Your task to perform on an android device: Open Google Maps Image 0: 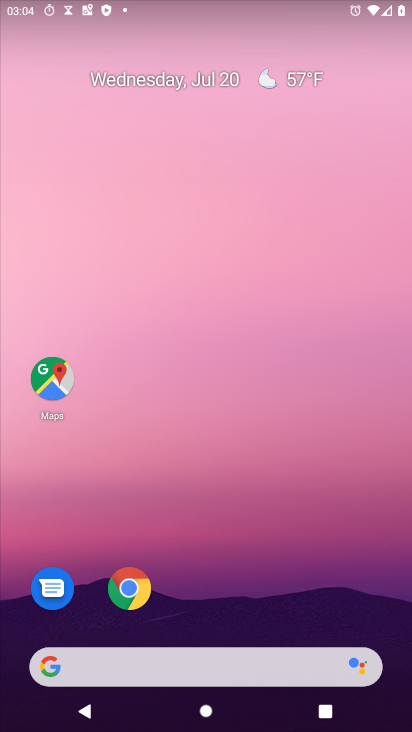
Step 0: drag from (238, 663) to (232, 21)
Your task to perform on an android device: Open Google Maps Image 1: 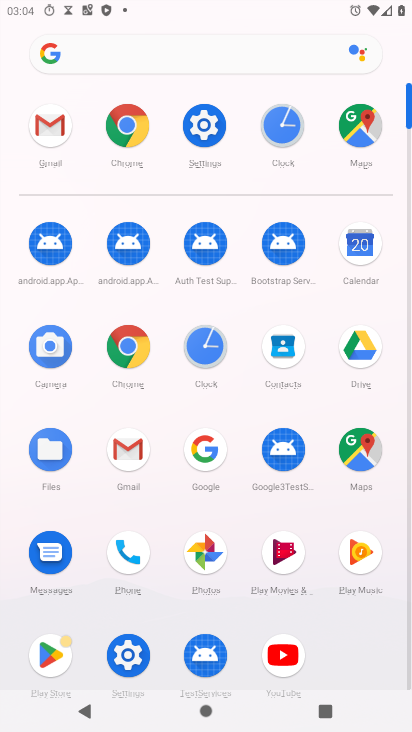
Step 1: click (363, 440)
Your task to perform on an android device: Open Google Maps Image 2: 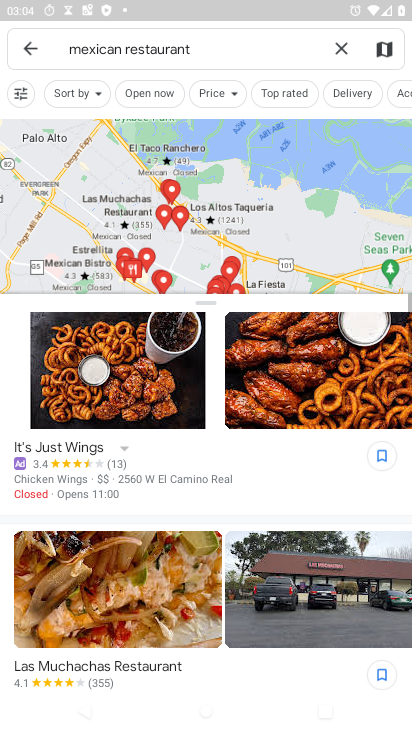
Step 2: task complete